Your task to perform on an android device: check out phone information Image 0: 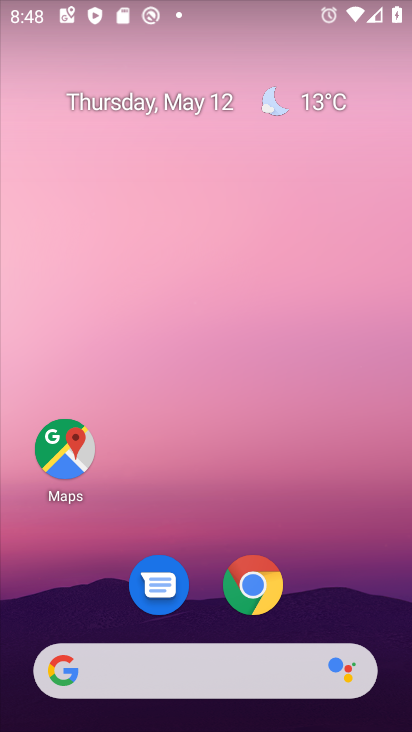
Step 0: drag from (241, 500) to (197, 40)
Your task to perform on an android device: check out phone information Image 1: 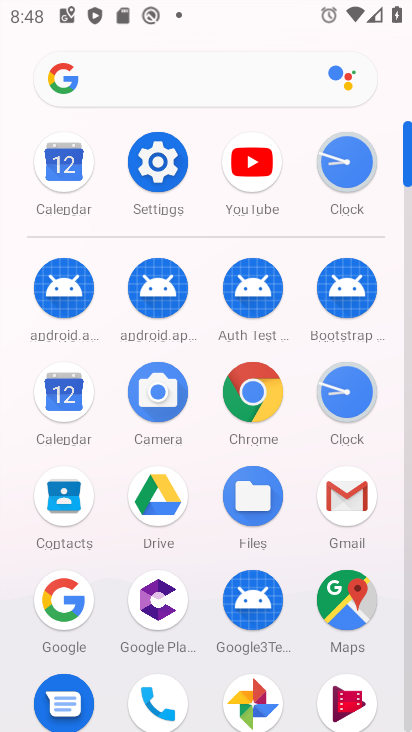
Step 1: click (170, 694)
Your task to perform on an android device: check out phone information Image 2: 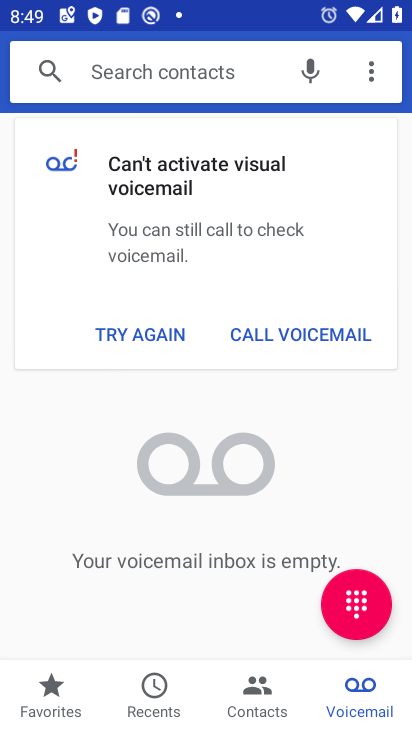
Step 2: click (367, 60)
Your task to perform on an android device: check out phone information Image 3: 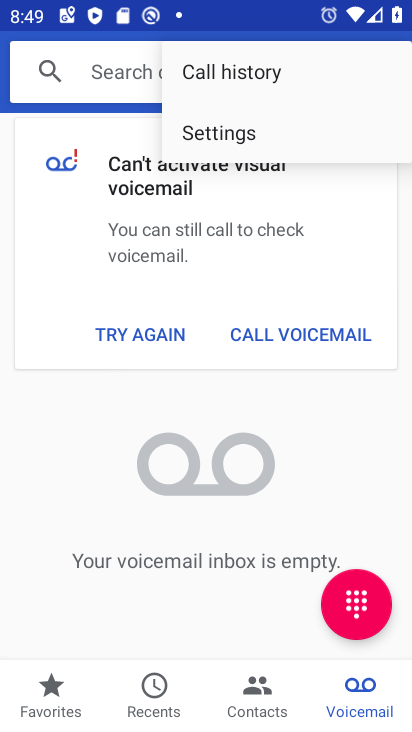
Step 3: click (305, 124)
Your task to perform on an android device: check out phone information Image 4: 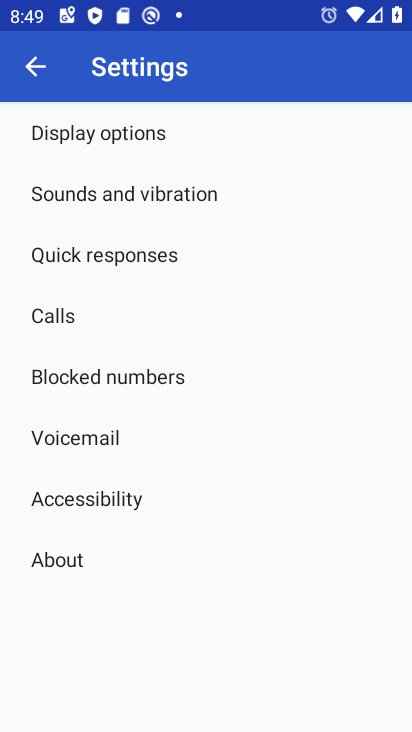
Step 4: click (113, 559)
Your task to perform on an android device: check out phone information Image 5: 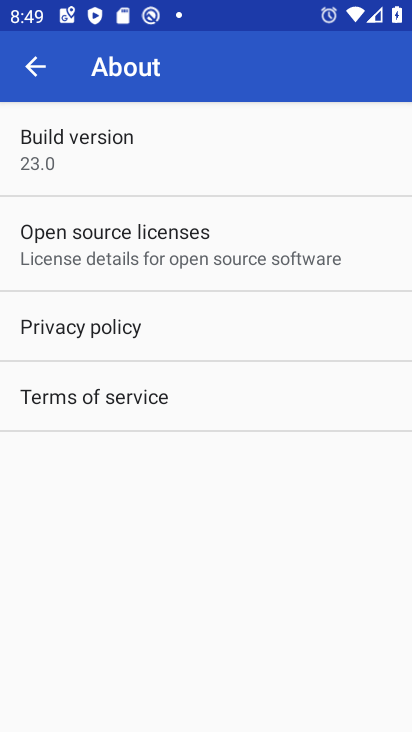
Step 5: task complete